Your task to perform on an android device: Open Google Maps and go to "Timeline" Image 0: 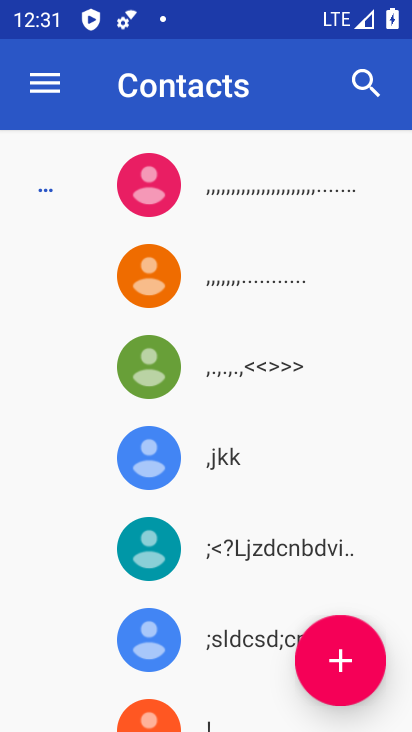
Step 0: press home button
Your task to perform on an android device: Open Google Maps and go to "Timeline" Image 1: 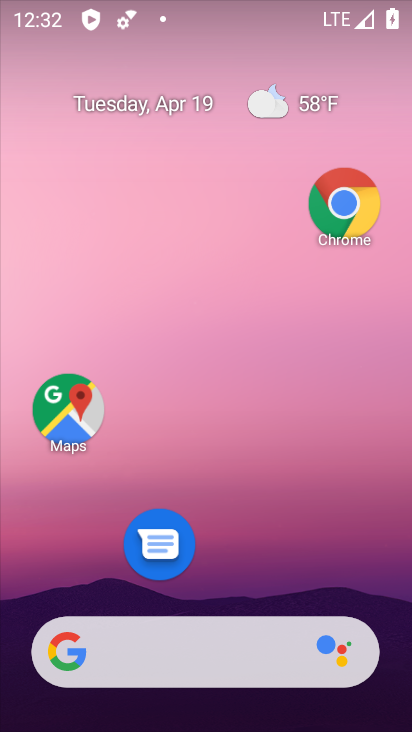
Step 1: click (70, 414)
Your task to perform on an android device: Open Google Maps and go to "Timeline" Image 2: 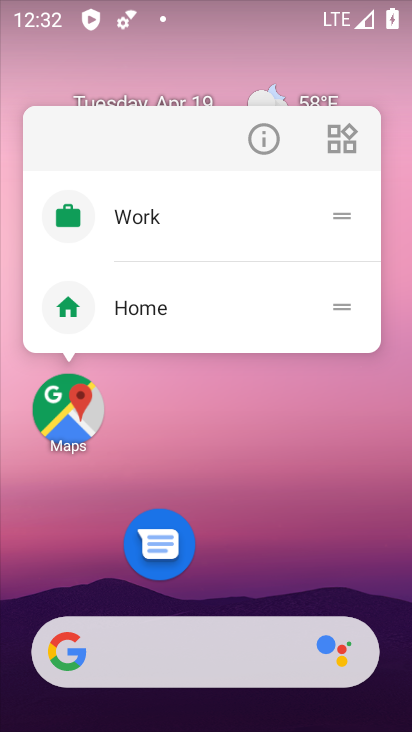
Step 2: click (64, 415)
Your task to perform on an android device: Open Google Maps and go to "Timeline" Image 3: 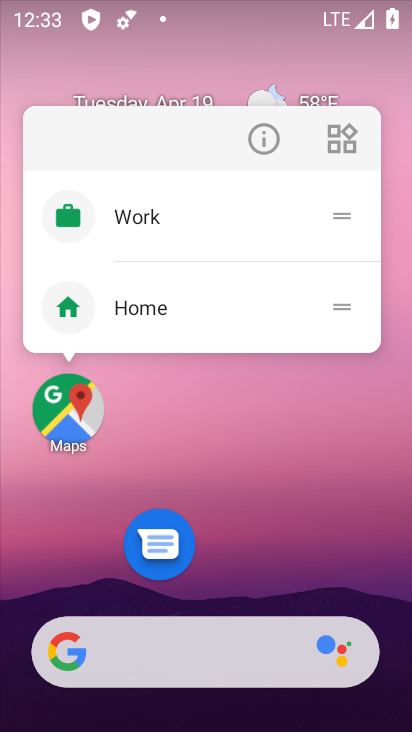
Step 3: click (75, 401)
Your task to perform on an android device: Open Google Maps and go to "Timeline" Image 4: 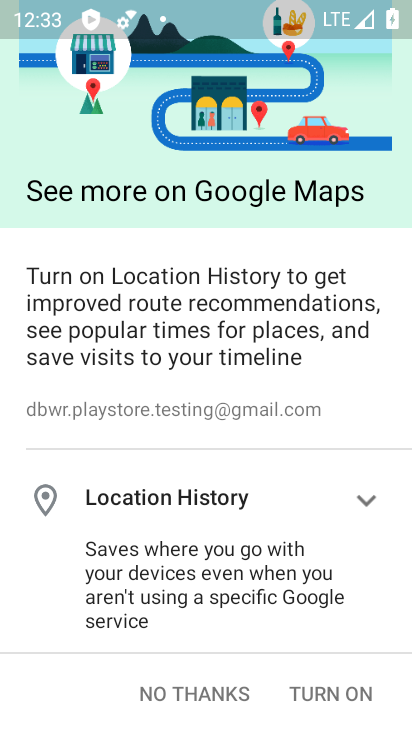
Step 4: click (222, 692)
Your task to perform on an android device: Open Google Maps and go to "Timeline" Image 5: 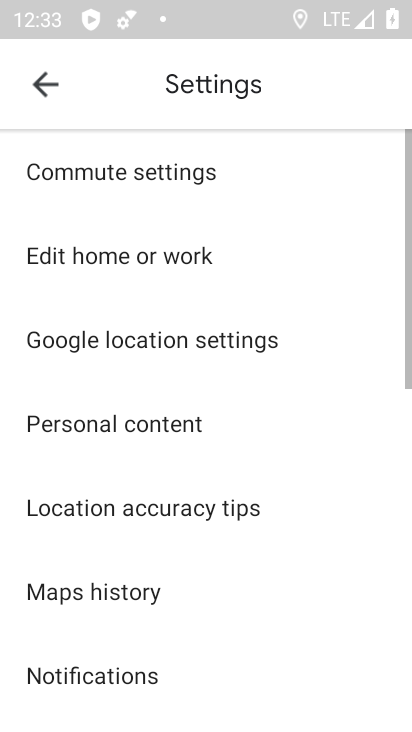
Step 5: click (57, 90)
Your task to perform on an android device: Open Google Maps and go to "Timeline" Image 6: 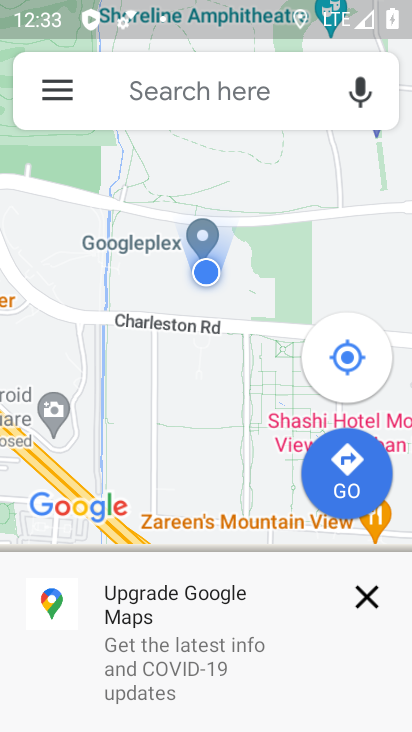
Step 6: click (38, 95)
Your task to perform on an android device: Open Google Maps and go to "Timeline" Image 7: 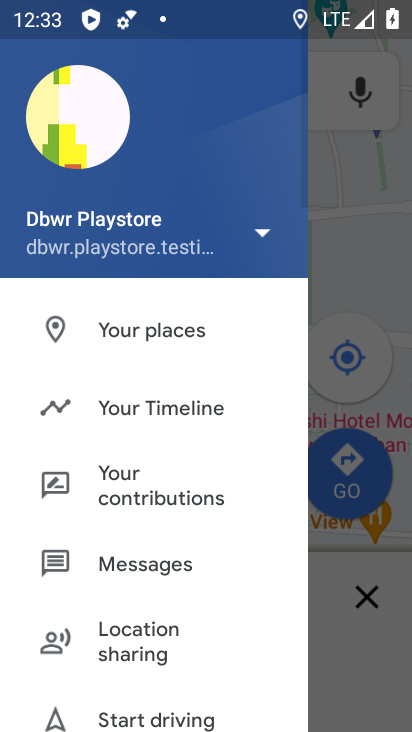
Step 7: click (156, 400)
Your task to perform on an android device: Open Google Maps and go to "Timeline" Image 8: 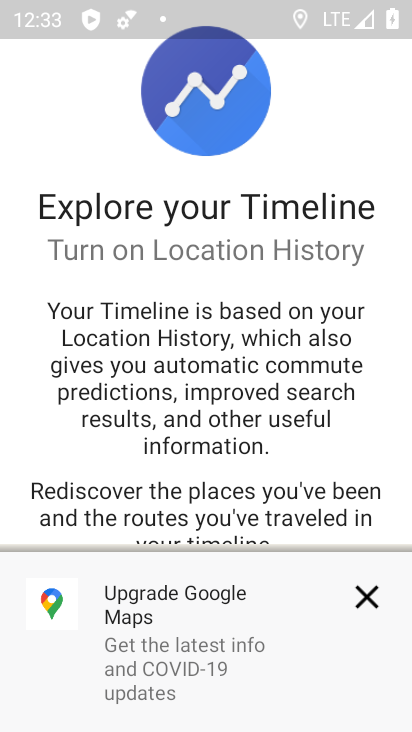
Step 8: click (365, 592)
Your task to perform on an android device: Open Google Maps and go to "Timeline" Image 9: 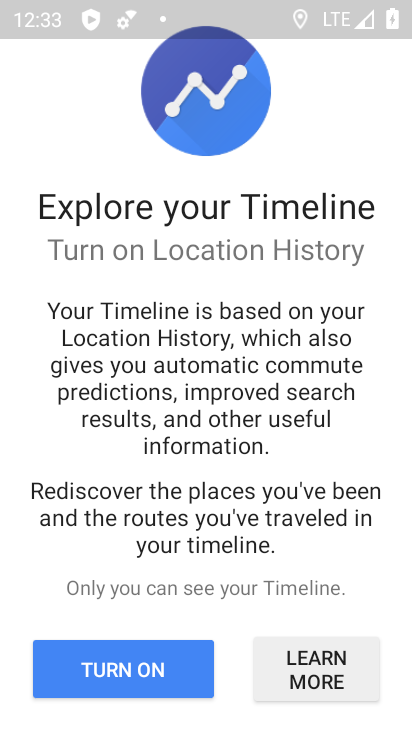
Step 9: click (176, 654)
Your task to perform on an android device: Open Google Maps and go to "Timeline" Image 10: 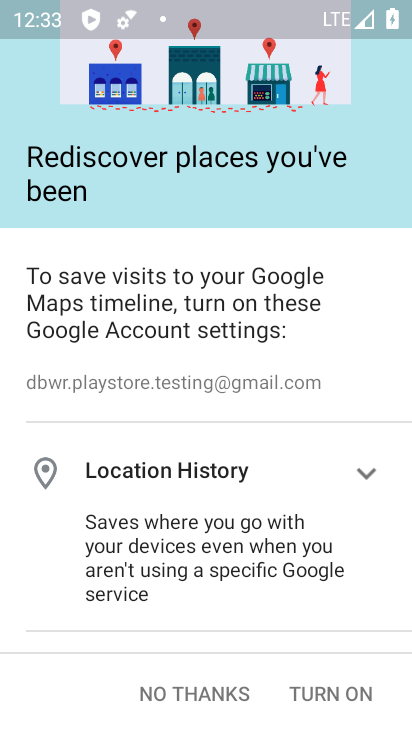
Step 10: click (313, 696)
Your task to perform on an android device: Open Google Maps and go to "Timeline" Image 11: 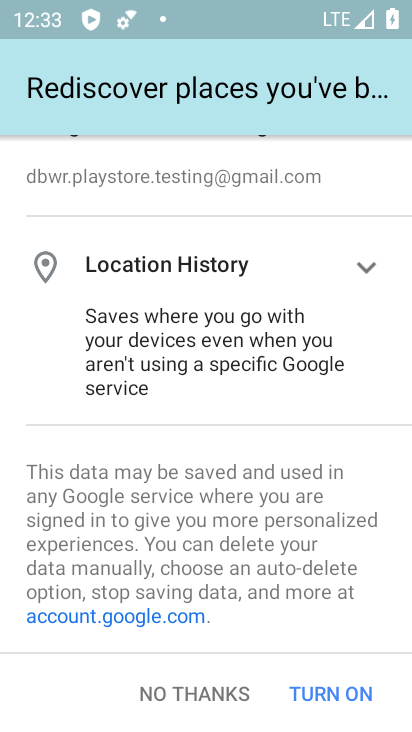
Step 11: click (313, 696)
Your task to perform on an android device: Open Google Maps and go to "Timeline" Image 12: 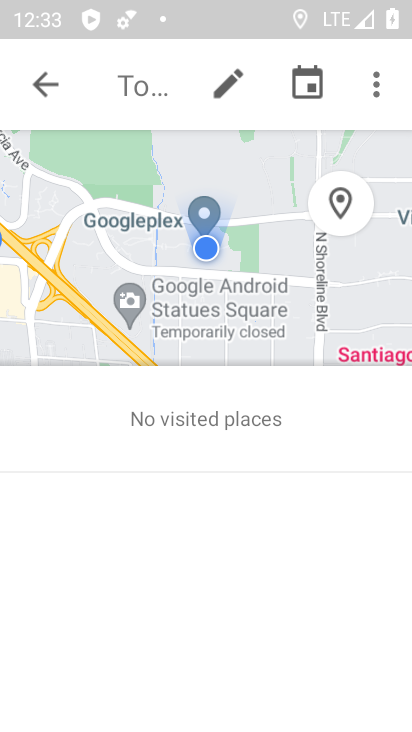
Step 12: task complete